Your task to perform on an android device: Show the shopping cart on walmart.com. Add apple airpods pro to the cart on walmart.com, then select checkout. Image 0: 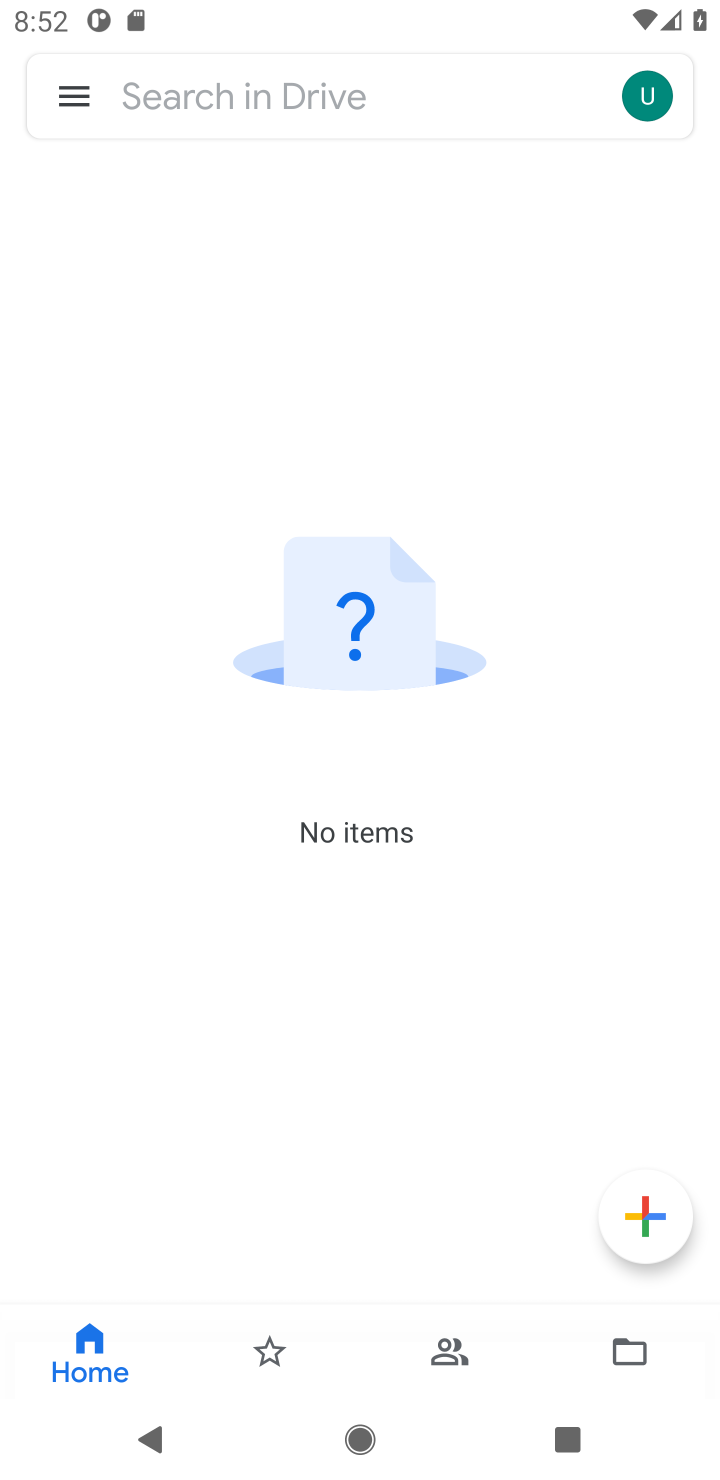
Step 0: press home button
Your task to perform on an android device: Show the shopping cart on walmart.com. Add apple airpods pro to the cart on walmart.com, then select checkout. Image 1: 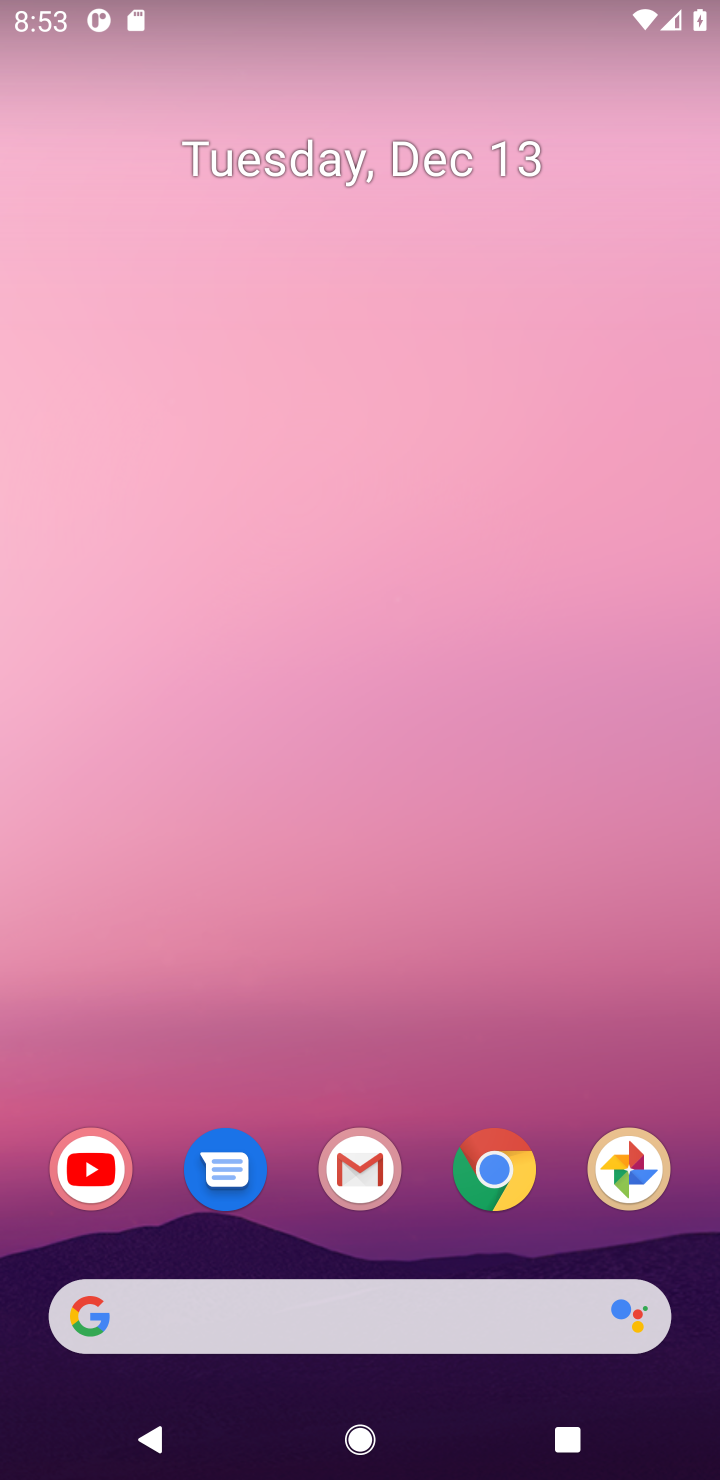
Step 1: click (480, 1213)
Your task to perform on an android device: Show the shopping cart on walmart.com. Add apple airpods pro to the cart on walmart.com, then select checkout. Image 2: 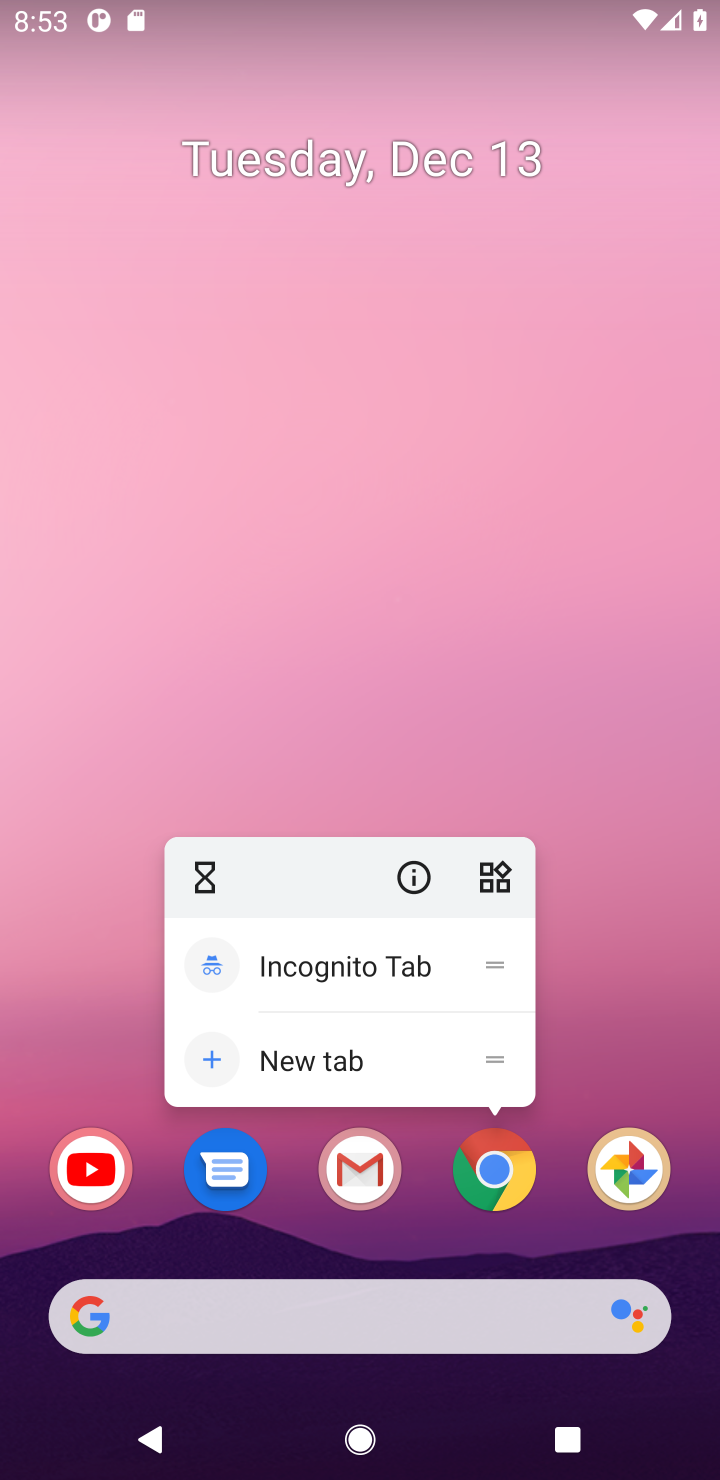
Step 2: click (466, 578)
Your task to perform on an android device: Show the shopping cart on walmart.com. Add apple airpods pro to the cart on walmart.com, then select checkout. Image 3: 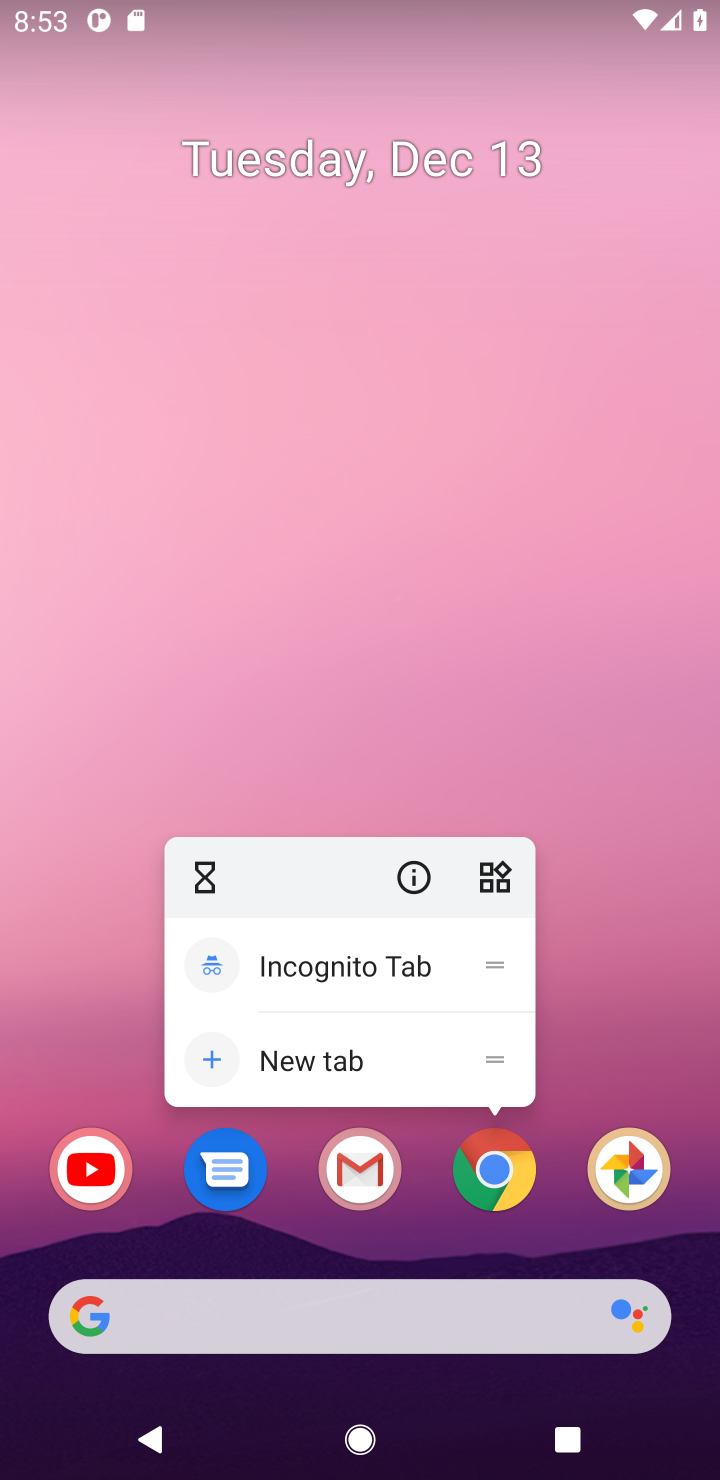
Step 3: click (466, 578)
Your task to perform on an android device: Show the shopping cart on walmart.com. Add apple airpods pro to the cart on walmart.com, then select checkout. Image 4: 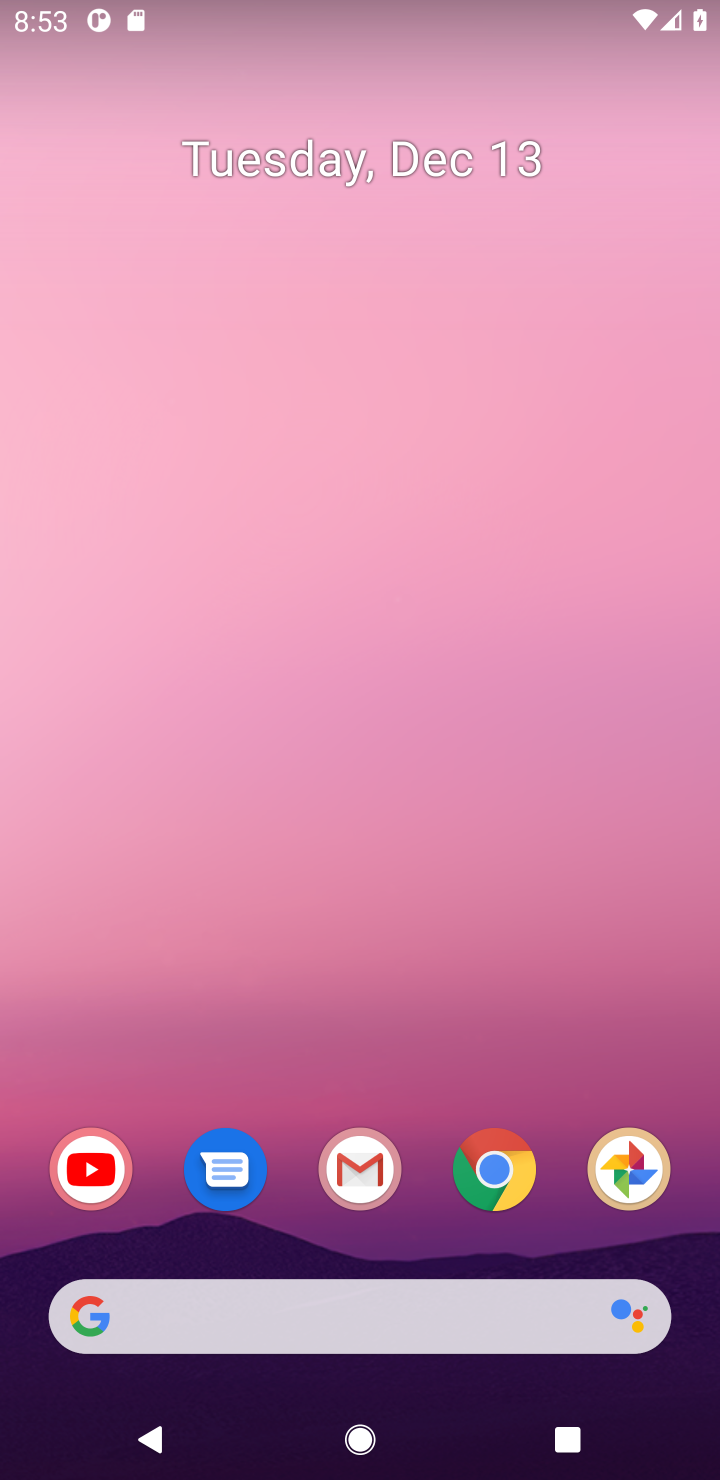
Step 4: click (315, 1321)
Your task to perform on an android device: Show the shopping cart on walmart.com. Add apple airpods pro to the cart on walmart.com, then select checkout. Image 5: 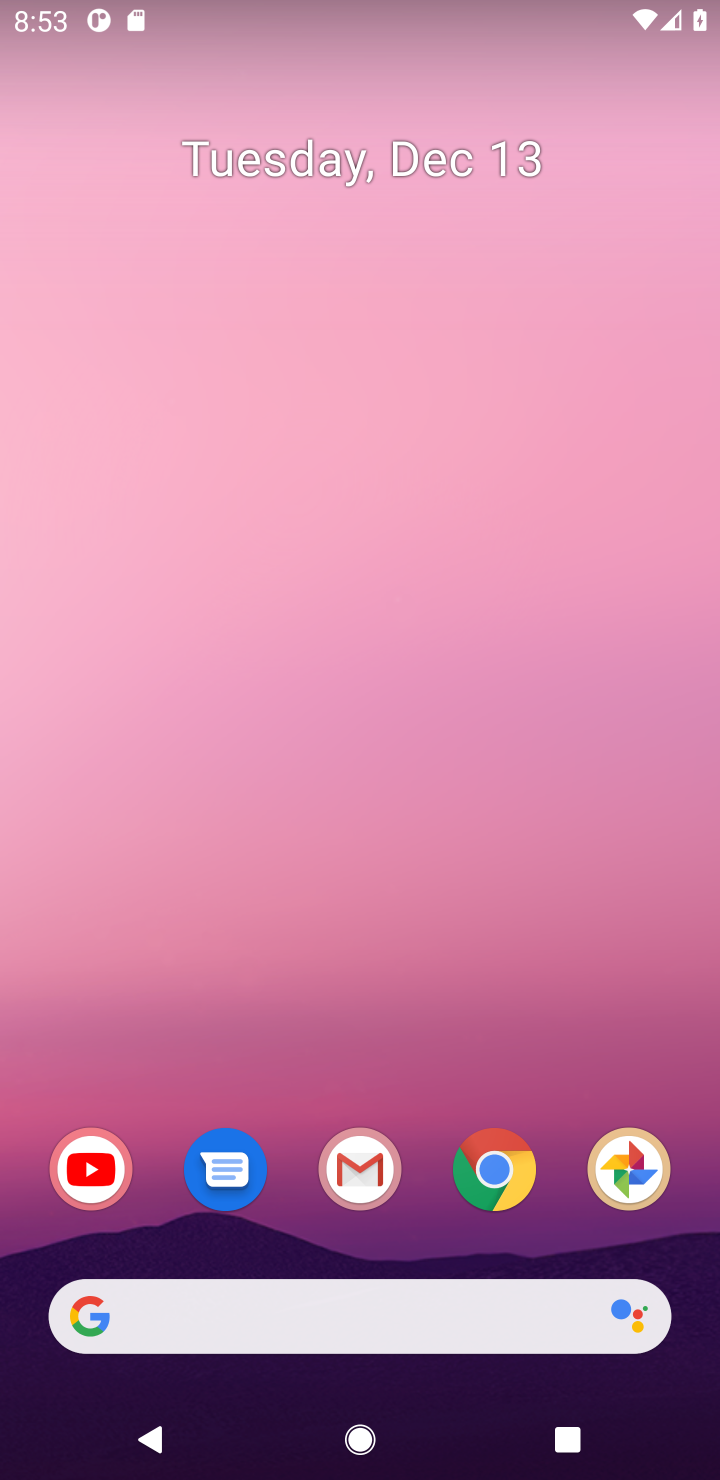
Step 5: type "walmart"
Your task to perform on an android device: Show the shopping cart on walmart.com. Add apple airpods pro to the cart on walmart.com, then select checkout. Image 6: 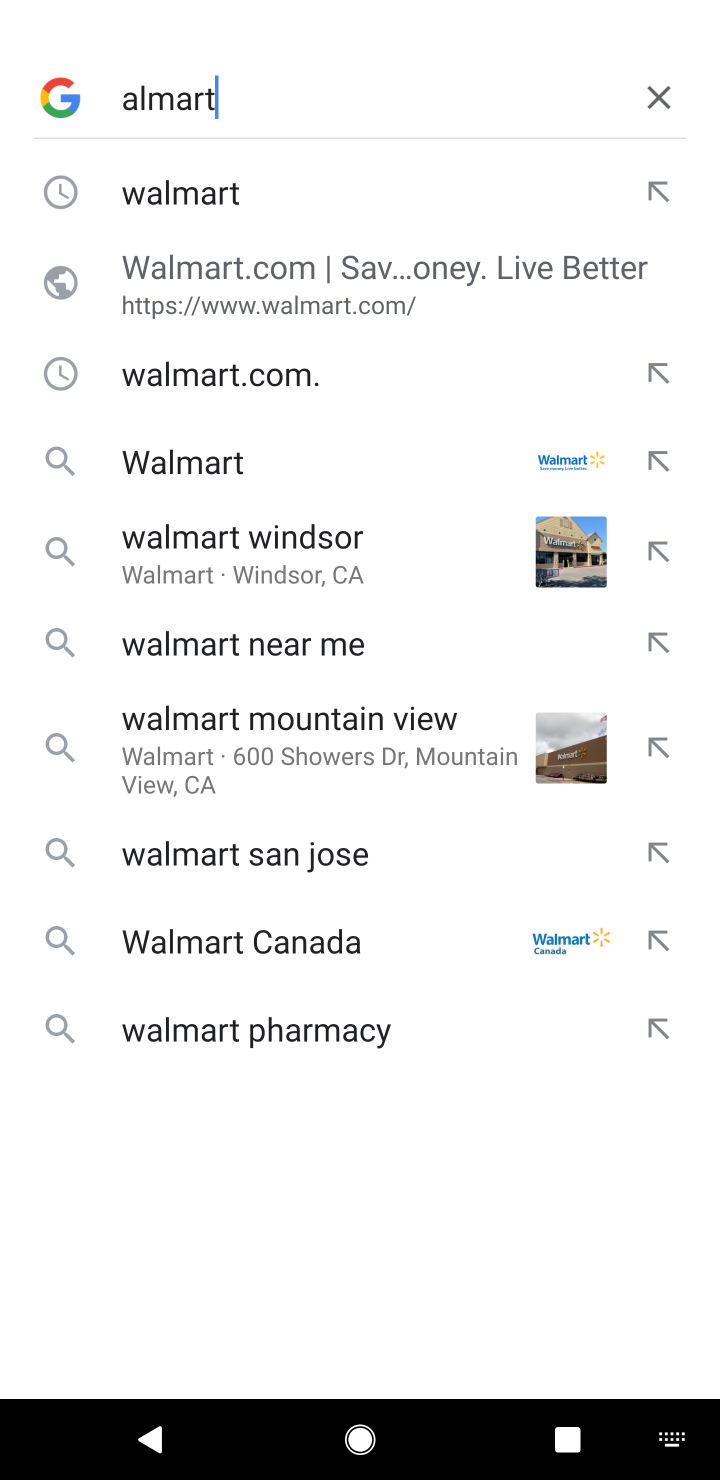
Step 6: click (180, 188)
Your task to perform on an android device: Show the shopping cart on walmart.com. Add apple airpods pro to the cart on walmart.com, then select checkout. Image 7: 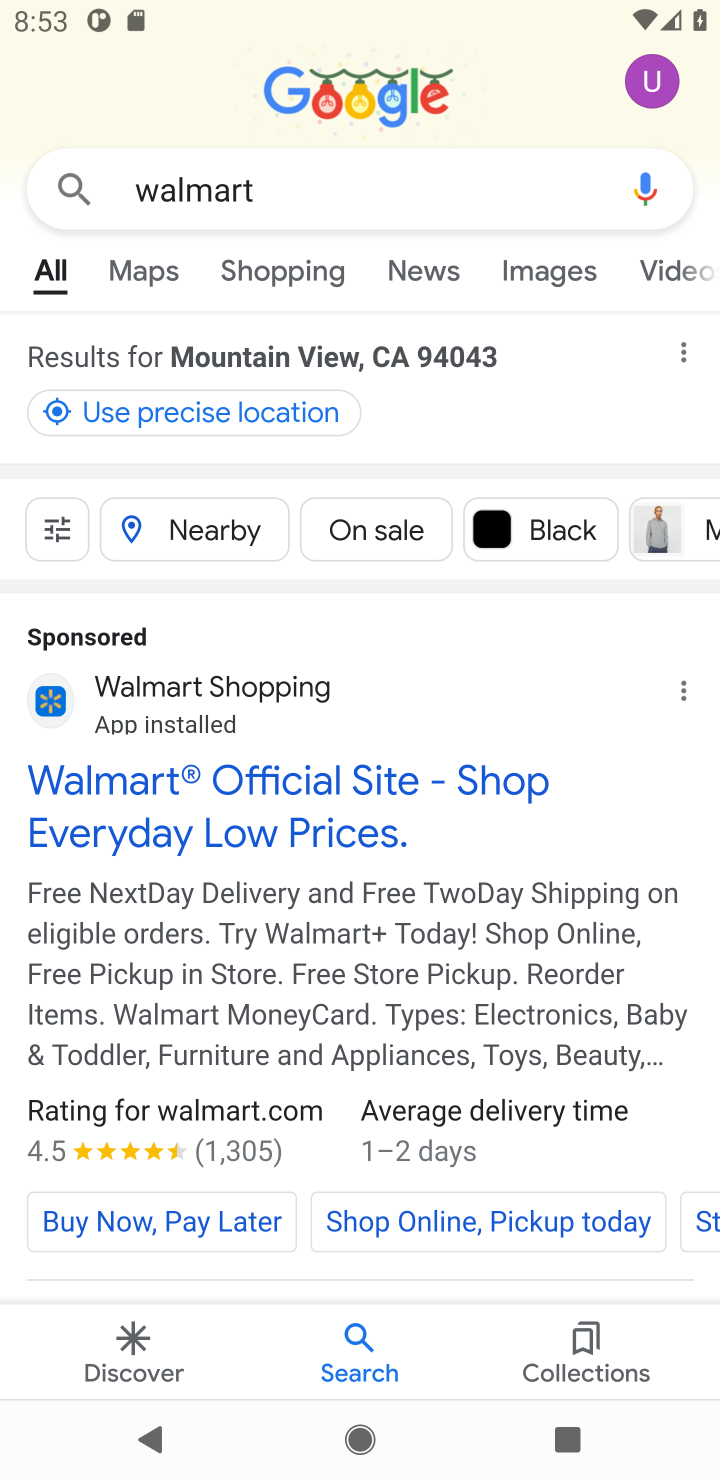
Step 7: click (140, 780)
Your task to perform on an android device: Show the shopping cart on walmart.com. Add apple airpods pro to the cart on walmart.com, then select checkout. Image 8: 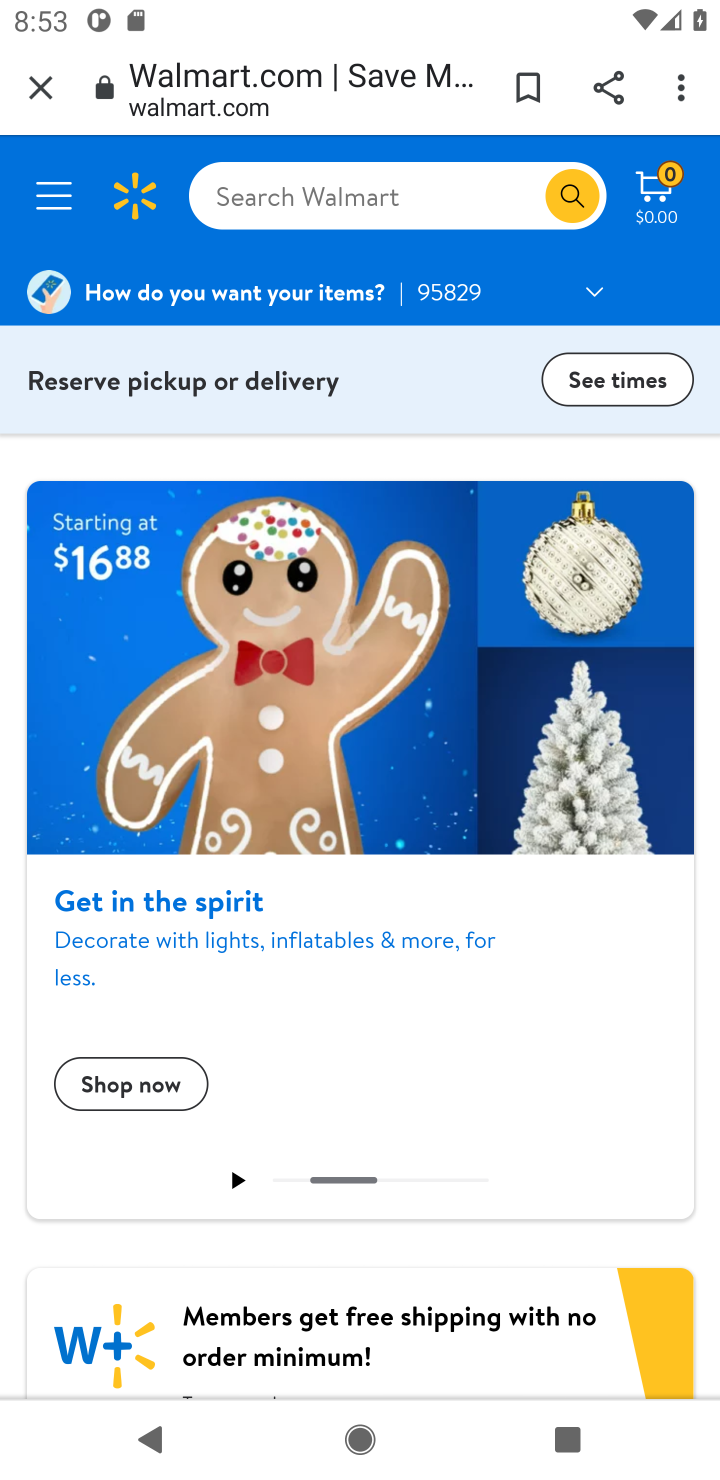
Step 8: click (288, 182)
Your task to perform on an android device: Show the shopping cart on walmart.com. Add apple airpods pro to the cart on walmart.com, then select checkout. Image 9: 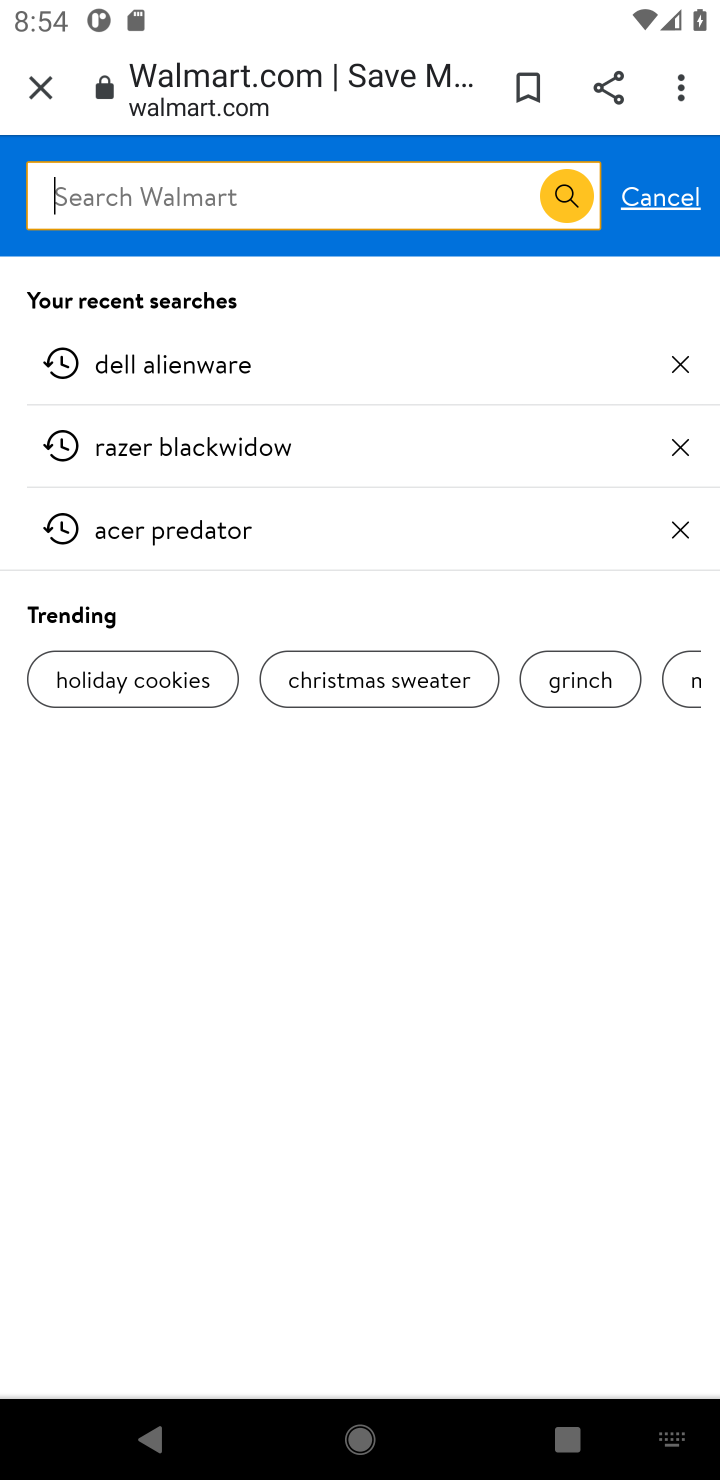
Step 9: type "apple airpod"
Your task to perform on an android device: Show the shopping cart on walmart.com. Add apple airpods pro to the cart on walmart.com, then select checkout. Image 10: 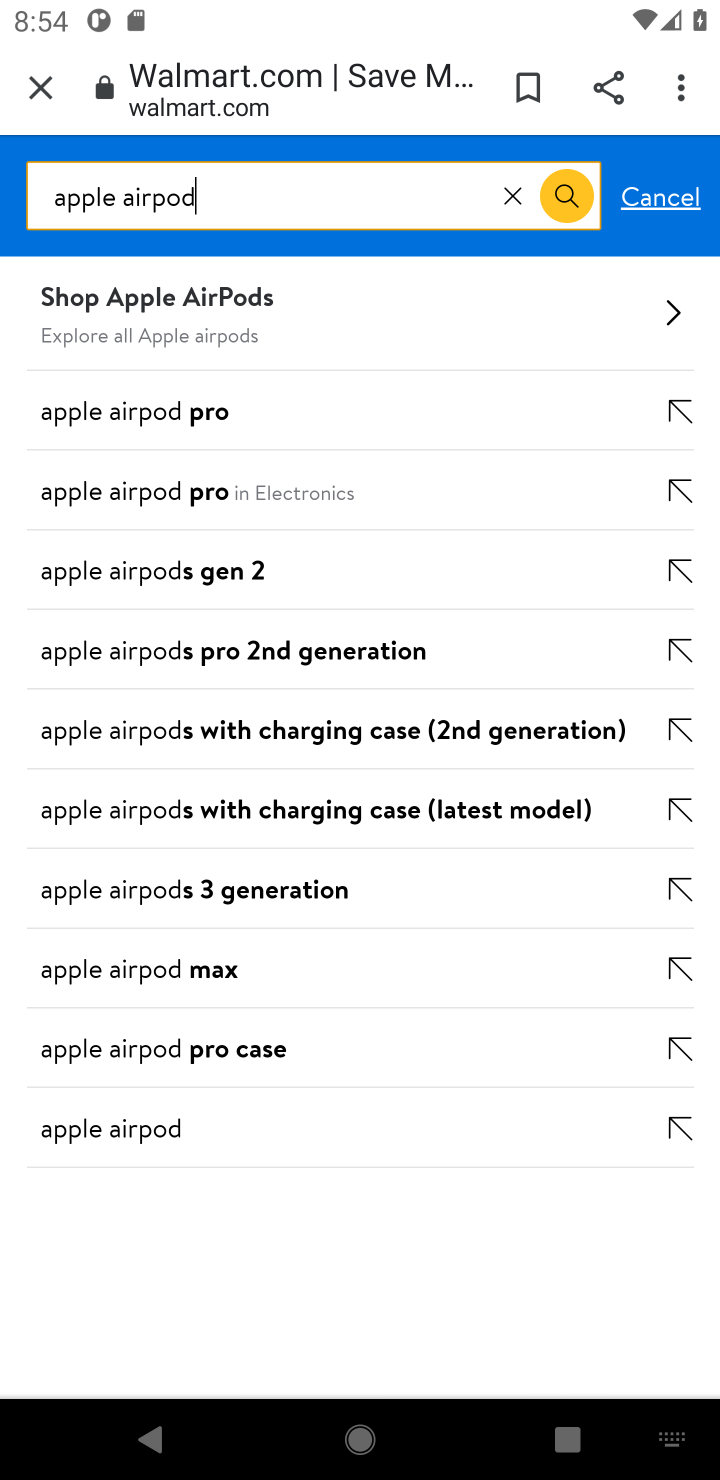
Step 10: click (576, 214)
Your task to perform on an android device: Show the shopping cart on walmart.com. Add apple airpods pro to the cart on walmart.com, then select checkout. Image 11: 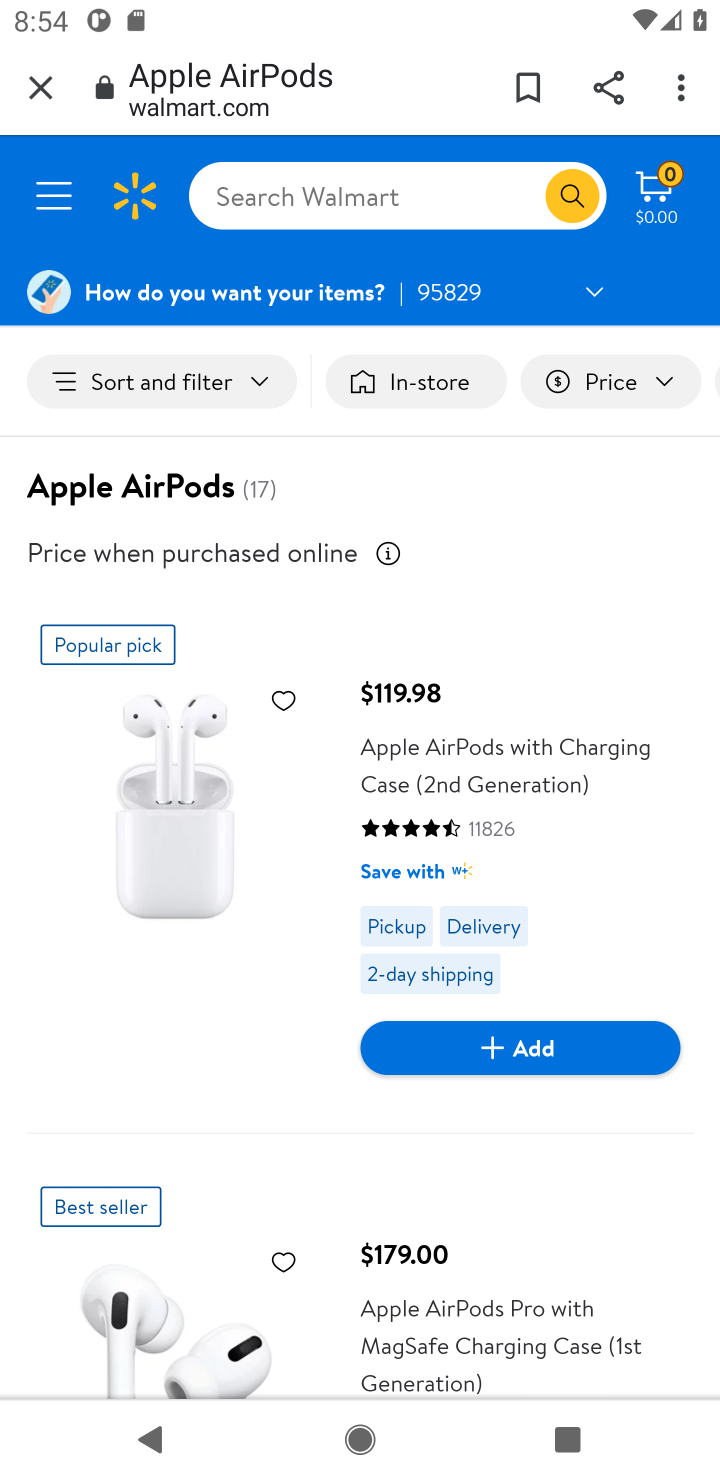
Step 11: click (456, 1018)
Your task to perform on an android device: Show the shopping cart on walmart.com. Add apple airpods pro to the cart on walmart.com, then select checkout. Image 12: 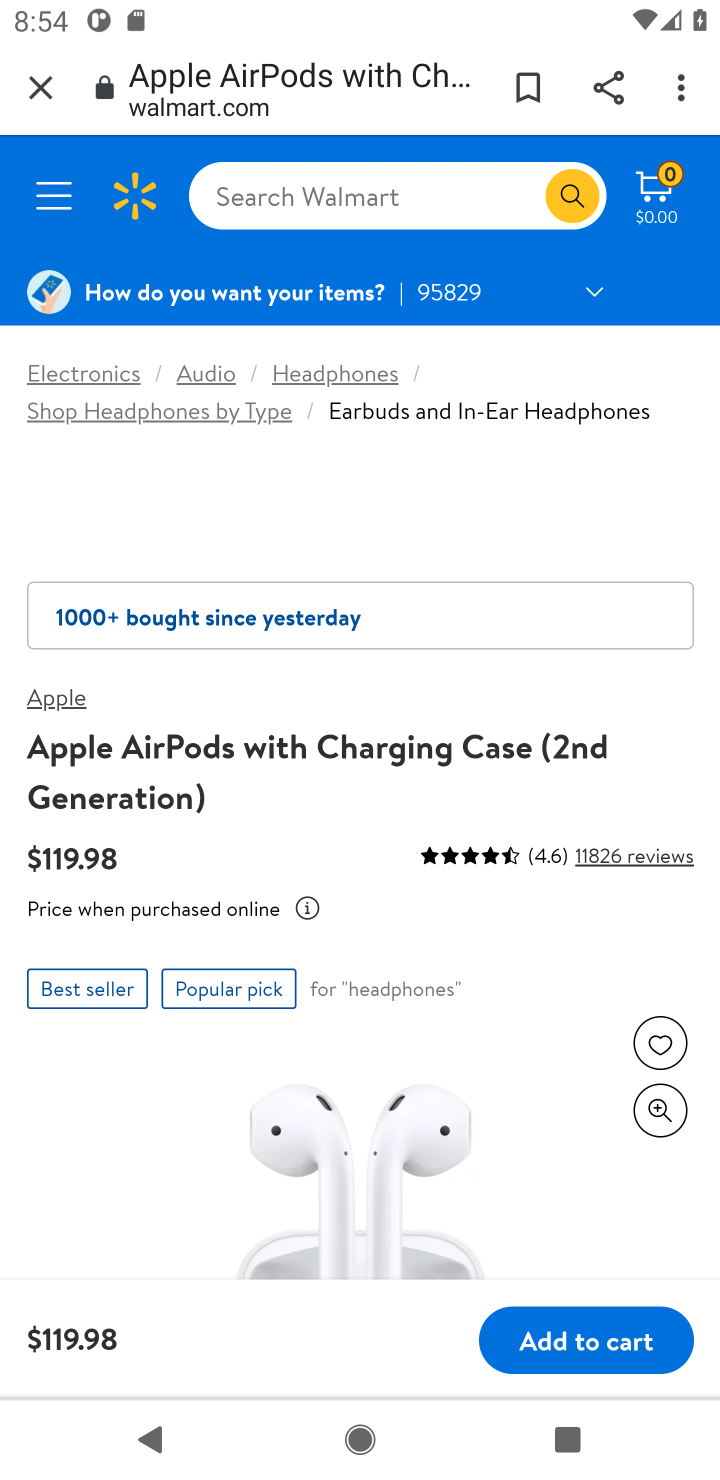
Step 12: task complete